Your task to perform on an android device: What's the weather going to be tomorrow? Image 0: 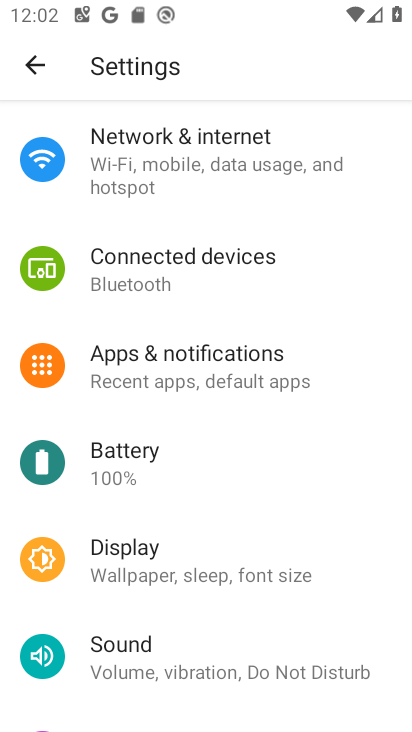
Step 0: press home button
Your task to perform on an android device: What's the weather going to be tomorrow? Image 1: 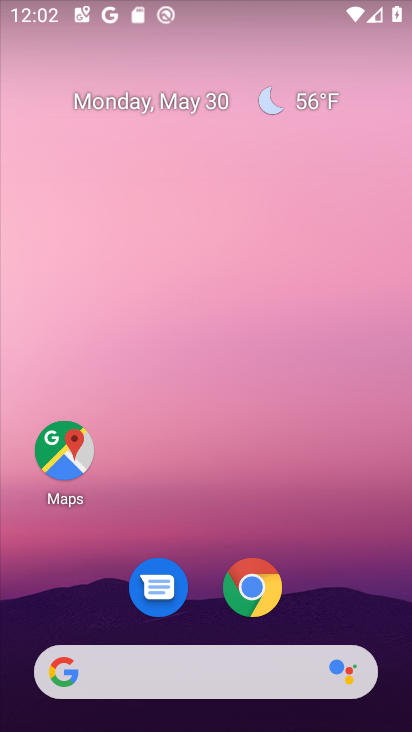
Step 1: drag from (376, 612) to (256, 196)
Your task to perform on an android device: What's the weather going to be tomorrow? Image 2: 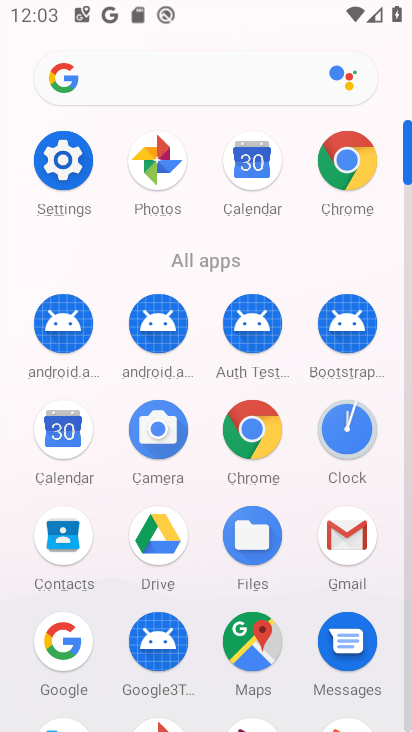
Step 2: click (333, 173)
Your task to perform on an android device: What's the weather going to be tomorrow? Image 3: 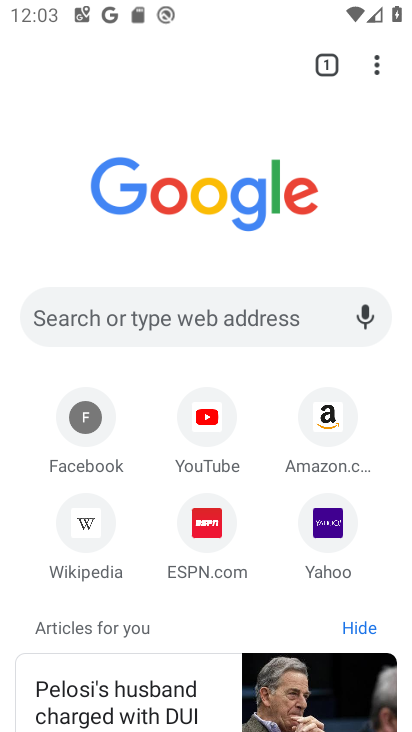
Step 3: click (227, 313)
Your task to perform on an android device: What's the weather going to be tomorrow? Image 4: 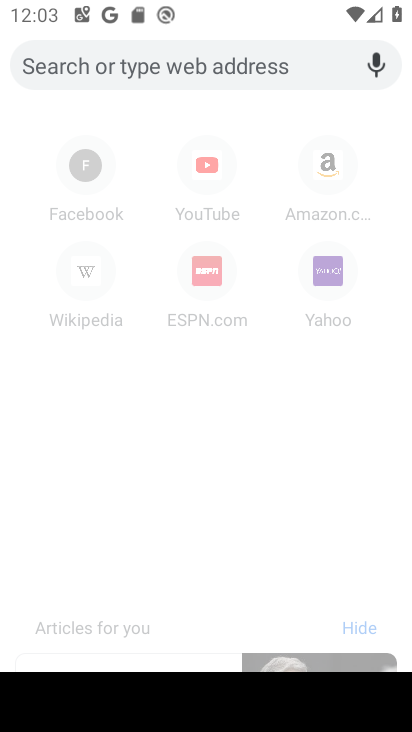
Step 4: type "What's the weather going to be tomorrow?"
Your task to perform on an android device: What's the weather going to be tomorrow? Image 5: 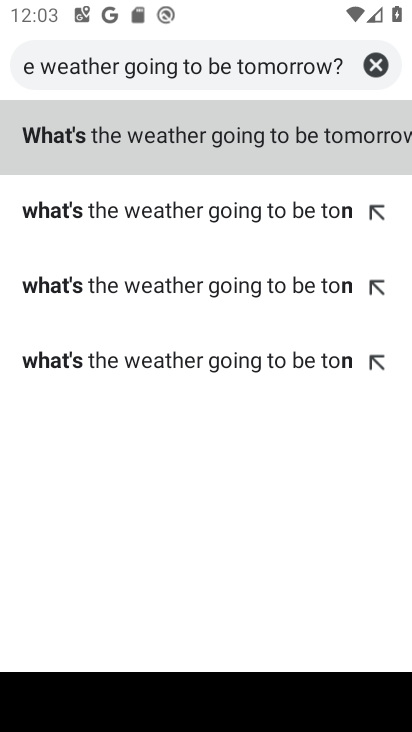
Step 5: click (303, 145)
Your task to perform on an android device: What's the weather going to be tomorrow? Image 6: 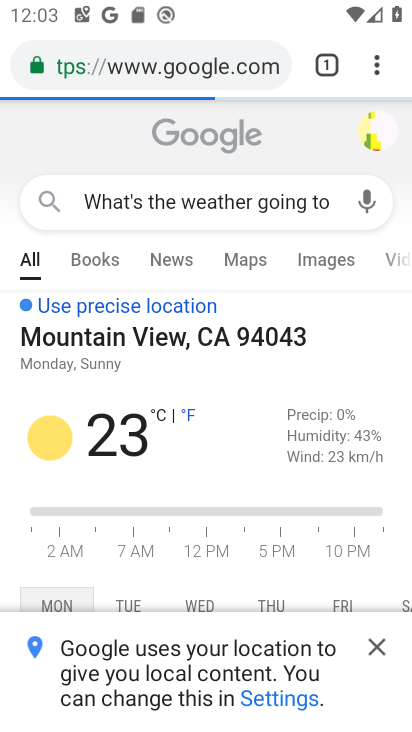
Step 6: click (377, 646)
Your task to perform on an android device: What's the weather going to be tomorrow? Image 7: 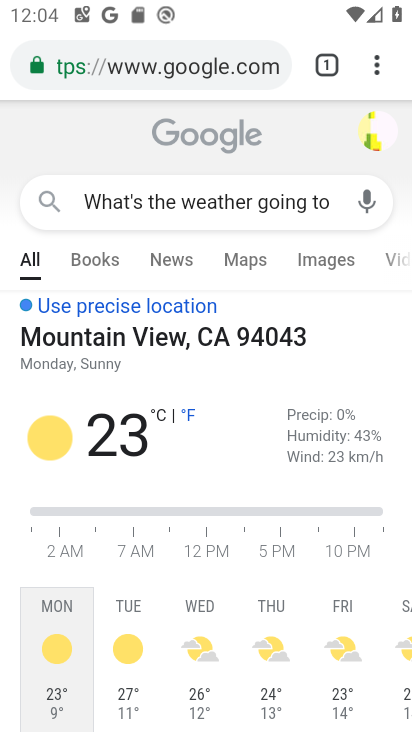
Step 7: task complete